Your task to perform on an android device: move a message to another label in the gmail app Image 0: 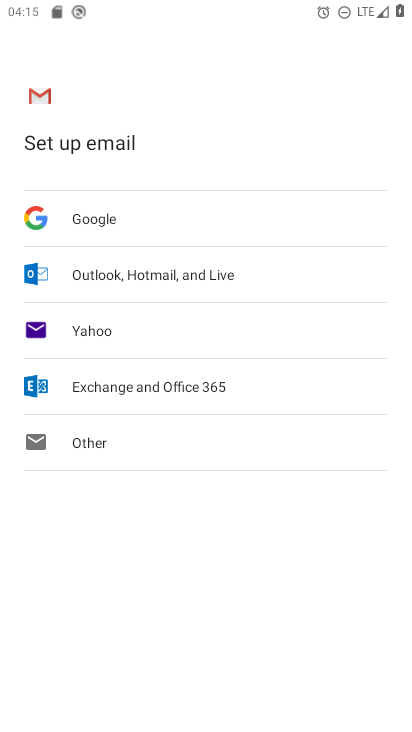
Step 0: press home button
Your task to perform on an android device: move a message to another label in the gmail app Image 1: 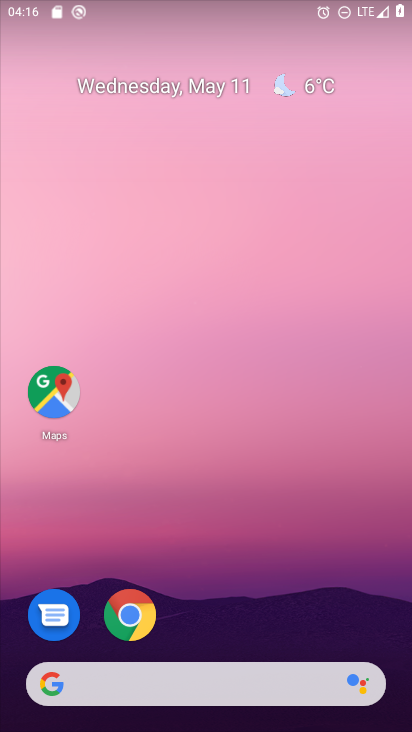
Step 1: drag from (157, 513) to (189, 6)
Your task to perform on an android device: move a message to another label in the gmail app Image 2: 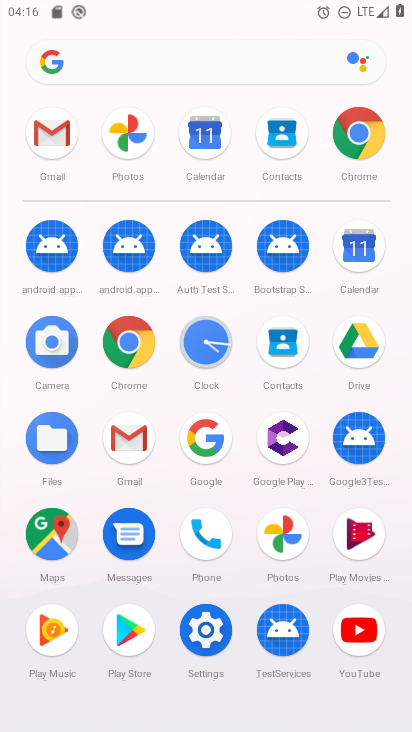
Step 2: click (49, 127)
Your task to perform on an android device: move a message to another label in the gmail app Image 3: 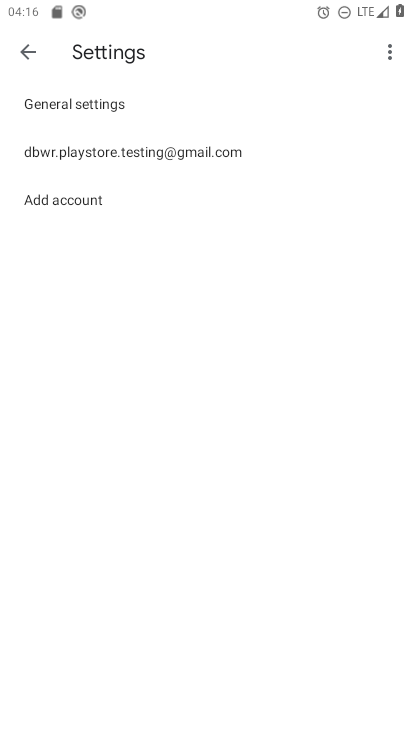
Step 3: click (29, 47)
Your task to perform on an android device: move a message to another label in the gmail app Image 4: 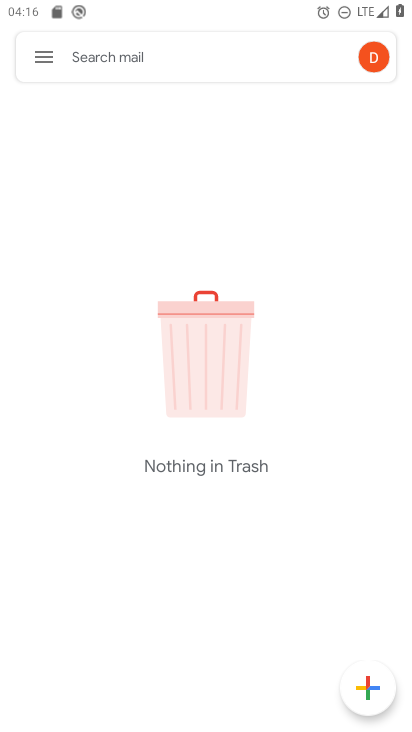
Step 4: click (34, 48)
Your task to perform on an android device: move a message to another label in the gmail app Image 5: 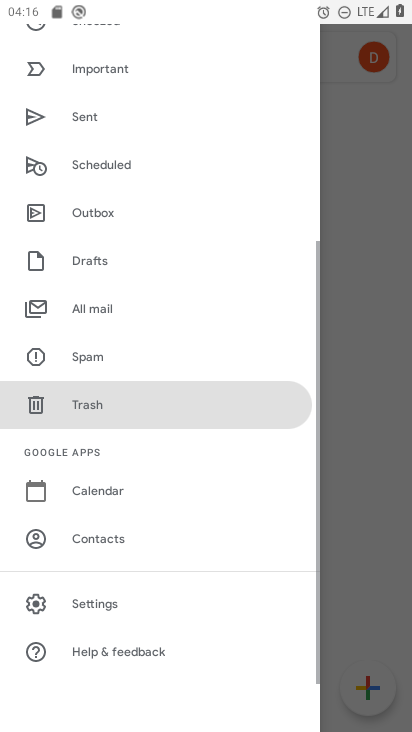
Step 5: drag from (156, 141) to (162, 691)
Your task to perform on an android device: move a message to another label in the gmail app Image 6: 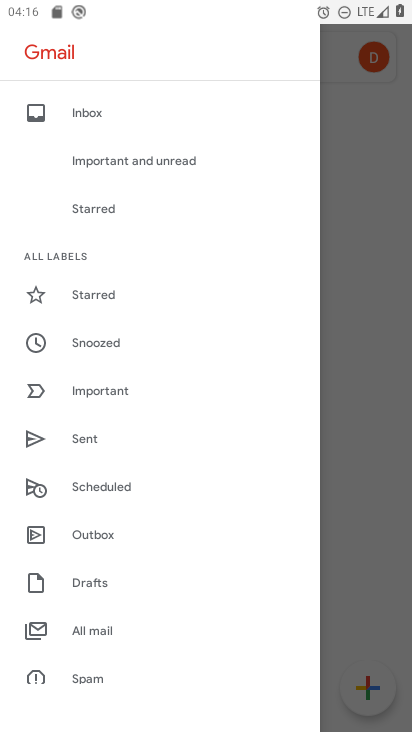
Step 6: click (108, 627)
Your task to perform on an android device: move a message to another label in the gmail app Image 7: 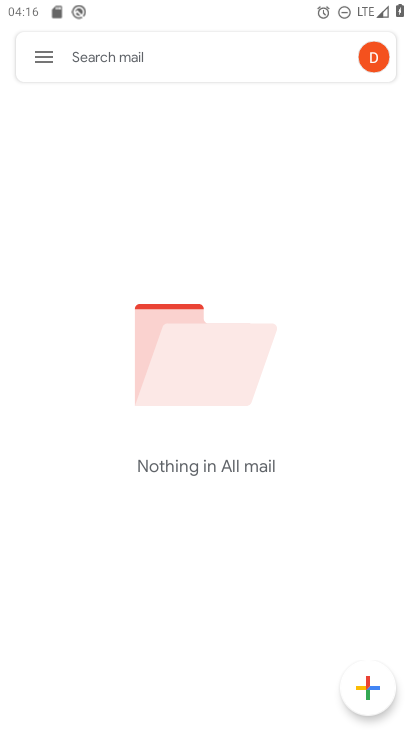
Step 7: task complete